Your task to perform on an android device: see creations saved in the google photos Image 0: 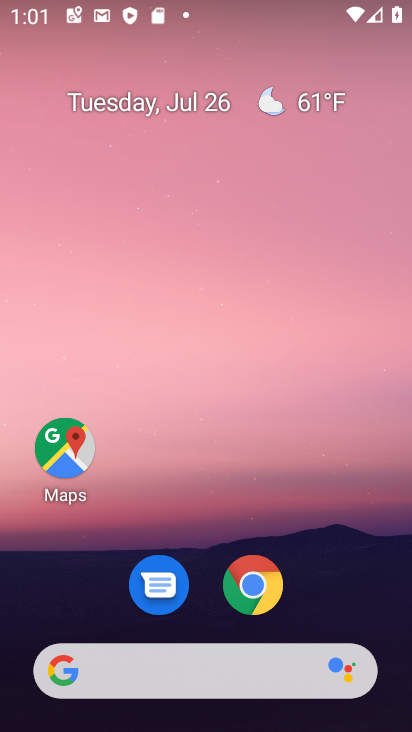
Step 0: drag from (146, 664) to (243, 214)
Your task to perform on an android device: see creations saved in the google photos Image 1: 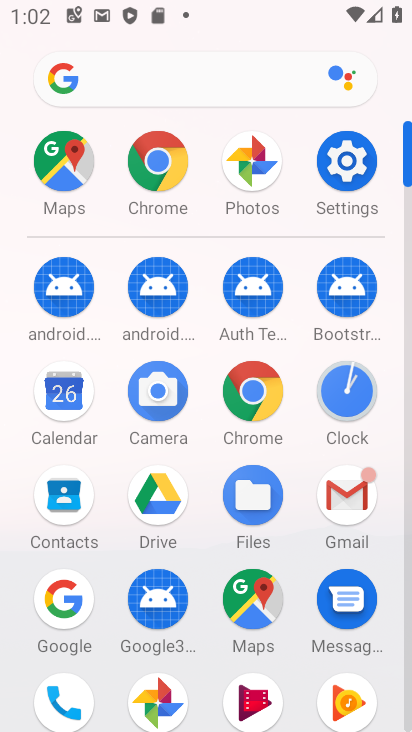
Step 1: click (260, 168)
Your task to perform on an android device: see creations saved in the google photos Image 2: 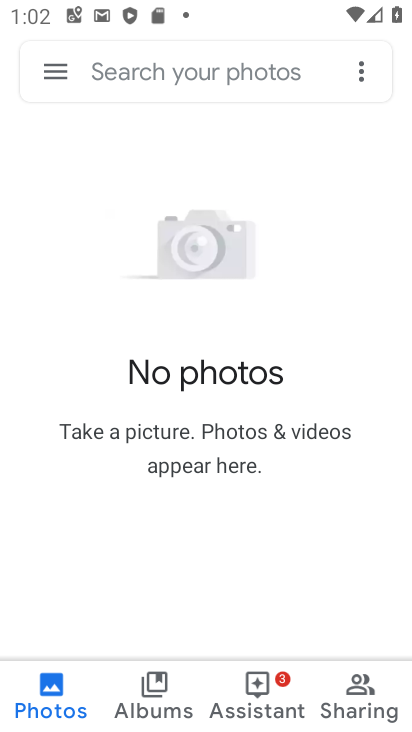
Step 2: click (159, 694)
Your task to perform on an android device: see creations saved in the google photos Image 3: 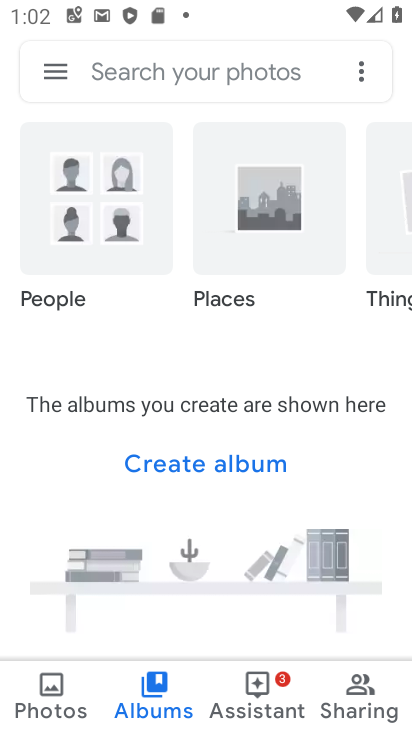
Step 3: click (163, 71)
Your task to perform on an android device: see creations saved in the google photos Image 4: 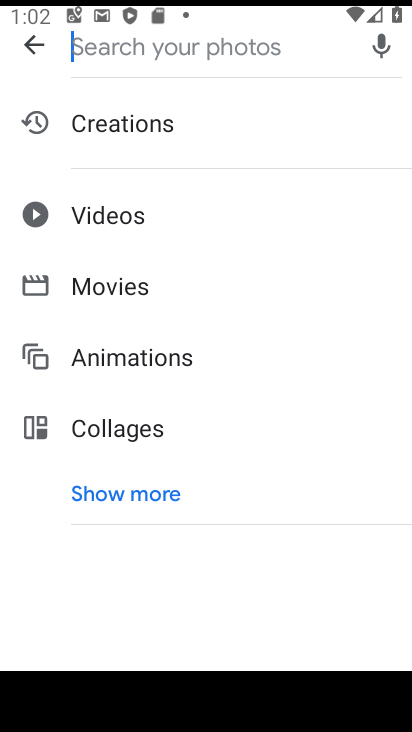
Step 4: click (122, 501)
Your task to perform on an android device: see creations saved in the google photos Image 5: 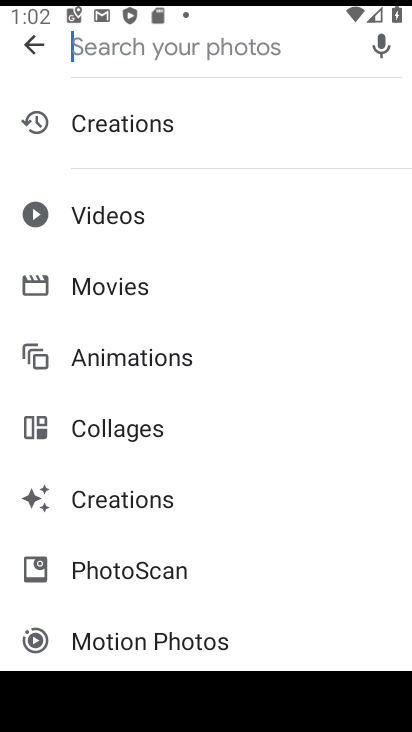
Step 5: click (136, 505)
Your task to perform on an android device: see creations saved in the google photos Image 6: 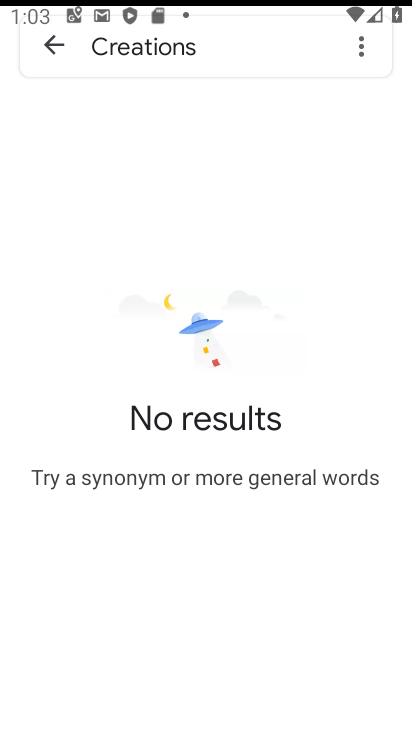
Step 6: task complete